Your task to perform on an android device: visit the assistant section in the google photos Image 0: 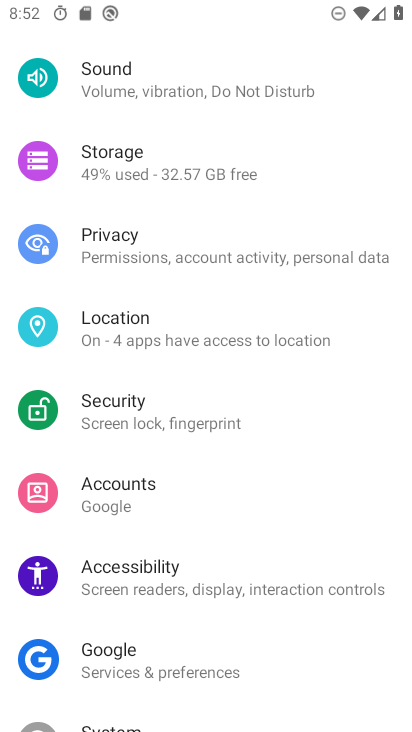
Step 0: press home button
Your task to perform on an android device: visit the assistant section in the google photos Image 1: 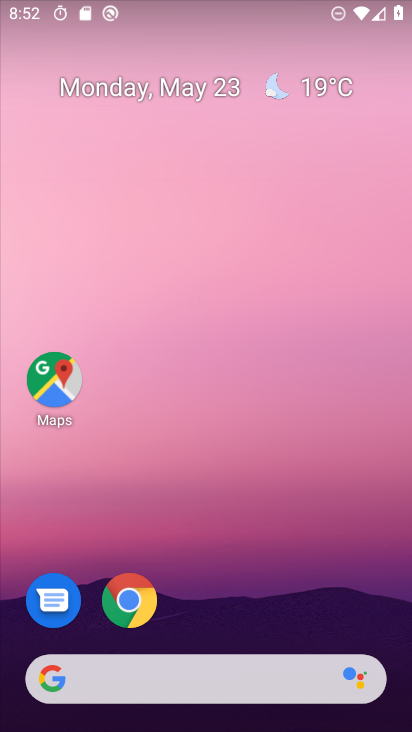
Step 1: drag from (26, 577) to (177, 237)
Your task to perform on an android device: visit the assistant section in the google photos Image 2: 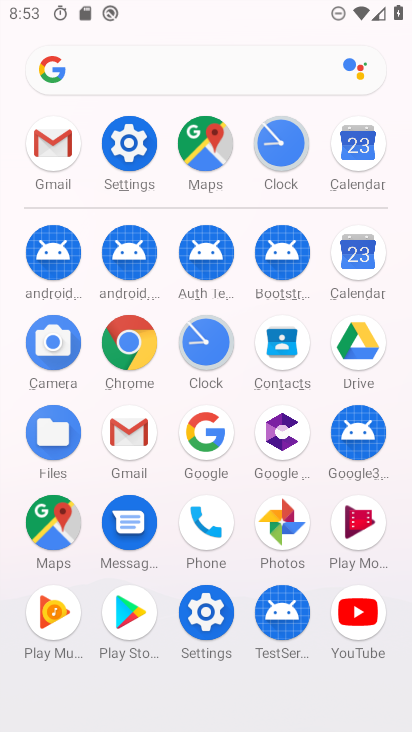
Step 2: click (277, 509)
Your task to perform on an android device: visit the assistant section in the google photos Image 3: 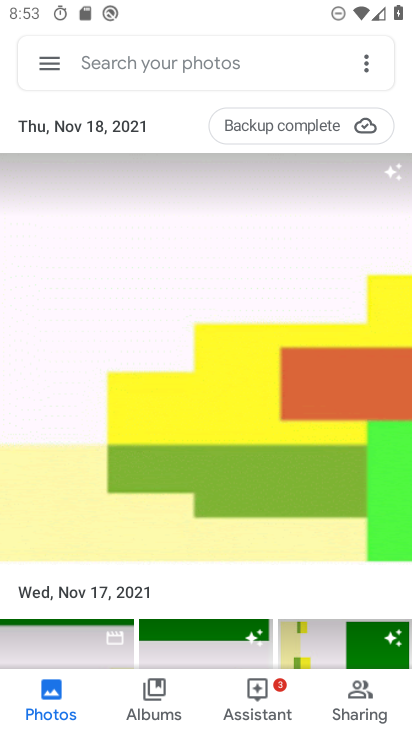
Step 3: click (253, 701)
Your task to perform on an android device: visit the assistant section in the google photos Image 4: 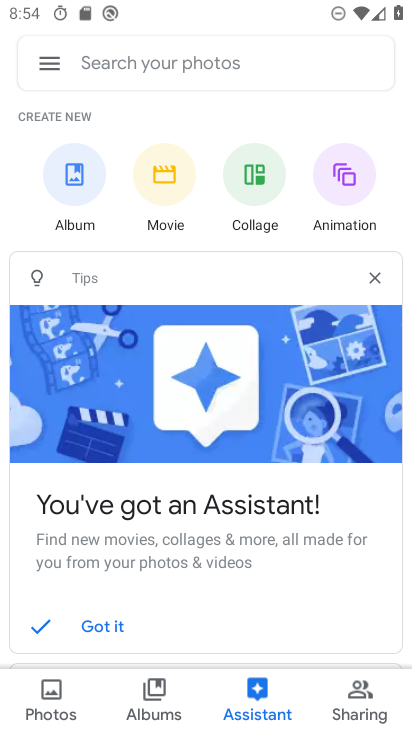
Step 4: task complete